Your task to perform on an android device: Search for seafood restaurants on Google Maps Image 0: 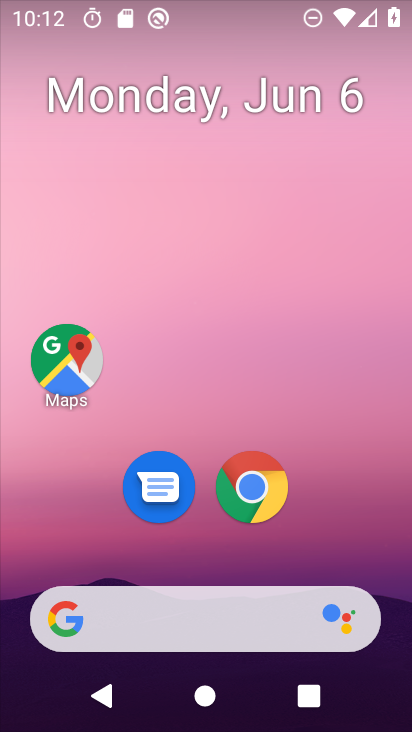
Step 0: click (404, 611)
Your task to perform on an android device: Search for seafood restaurants on Google Maps Image 1: 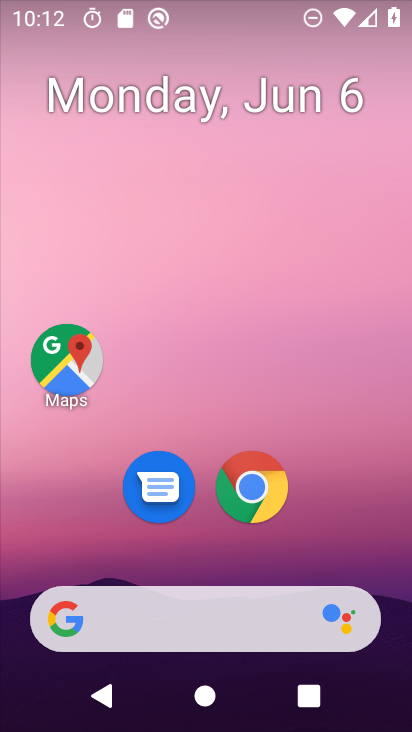
Step 1: drag from (271, 215) to (210, 82)
Your task to perform on an android device: Search for seafood restaurants on Google Maps Image 2: 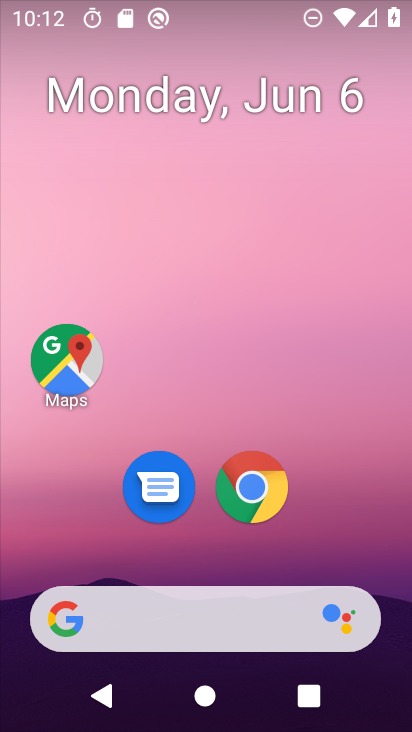
Step 2: drag from (394, 625) to (289, 175)
Your task to perform on an android device: Search for seafood restaurants on Google Maps Image 3: 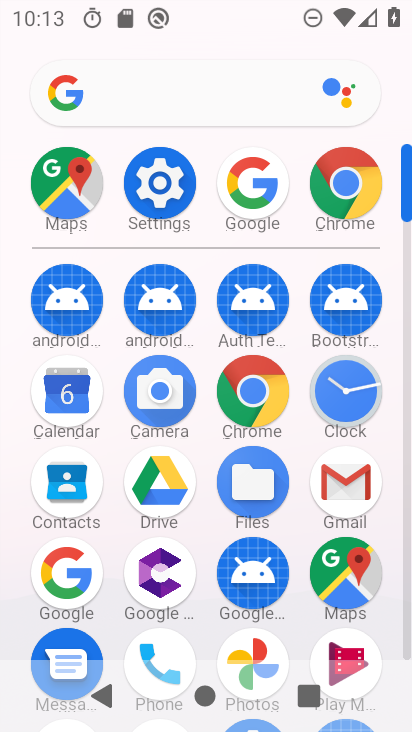
Step 3: click (352, 576)
Your task to perform on an android device: Search for seafood restaurants on Google Maps Image 4: 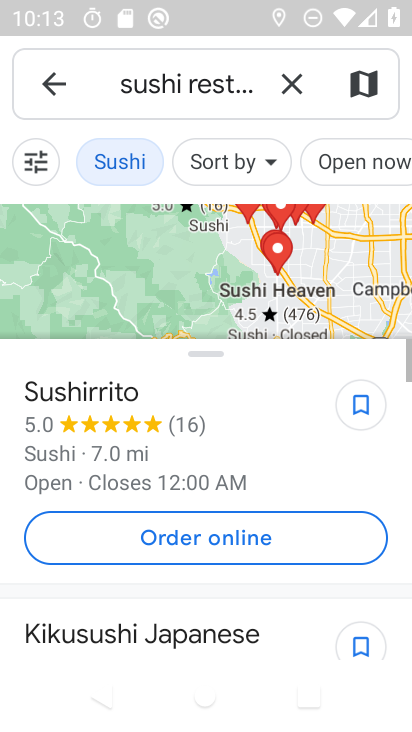
Step 4: click (290, 82)
Your task to perform on an android device: Search for seafood restaurants on Google Maps Image 5: 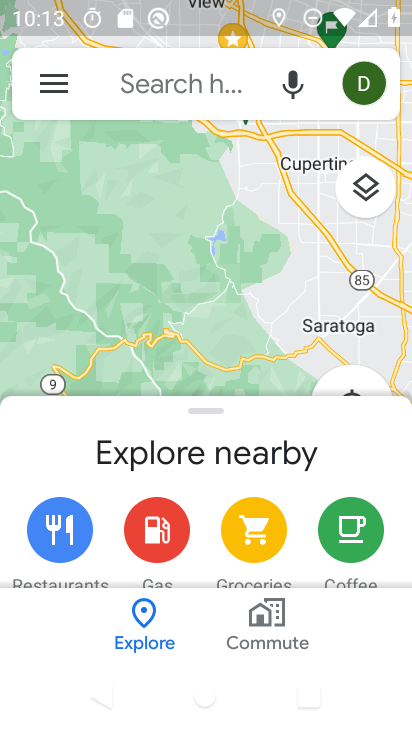
Step 5: click (198, 83)
Your task to perform on an android device: Search for seafood restaurants on Google Maps Image 6: 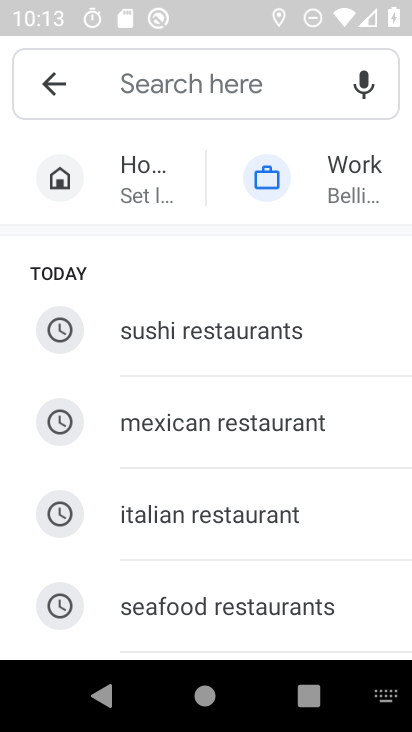
Step 6: click (217, 585)
Your task to perform on an android device: Search for seafood restaurants on Google Maps Image 7: 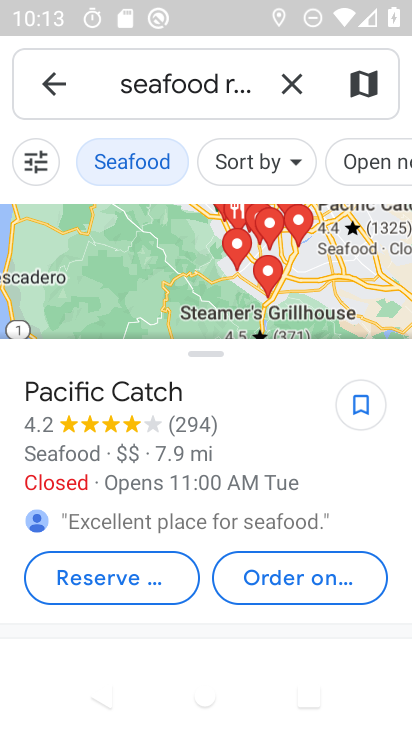
Step 7: task complete